Your task to perform on an android device: open chrome and create a bookmark for the current page Image 0: 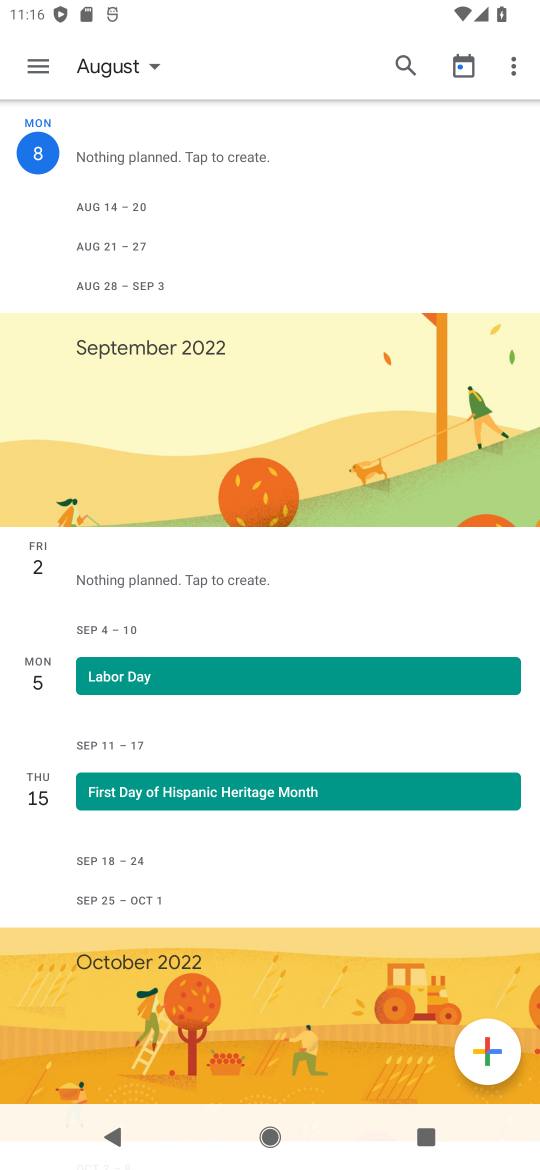
Step 0: press home button
Your task to perform on an android device: open chrome and create a bookmark for the current page Image 1: 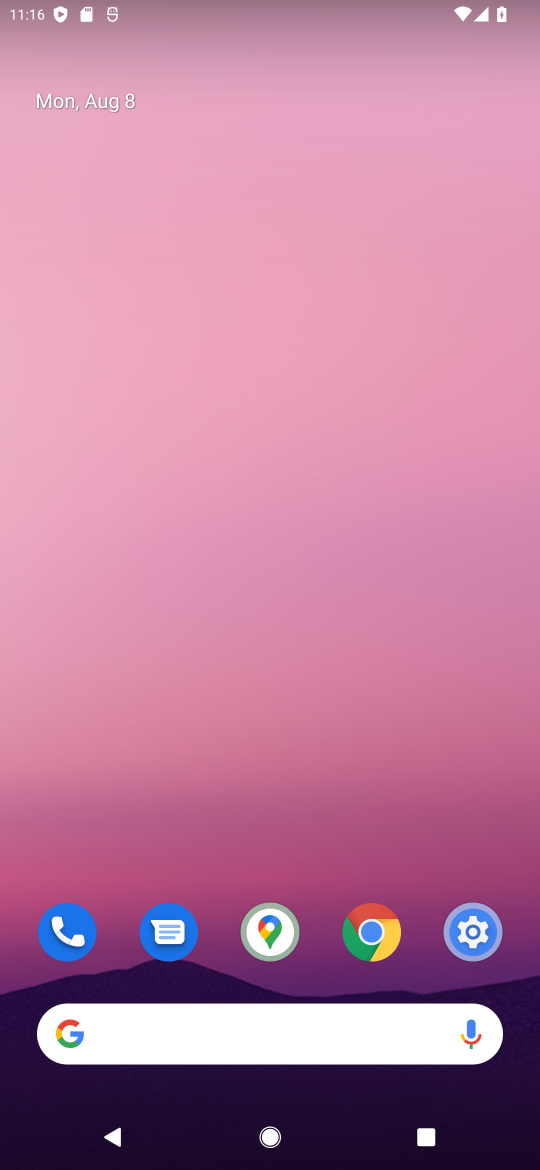
Step 1: click (389, 942)
Your task to perform on an android device: open chrome and create a bookmark for the current page Image 2: 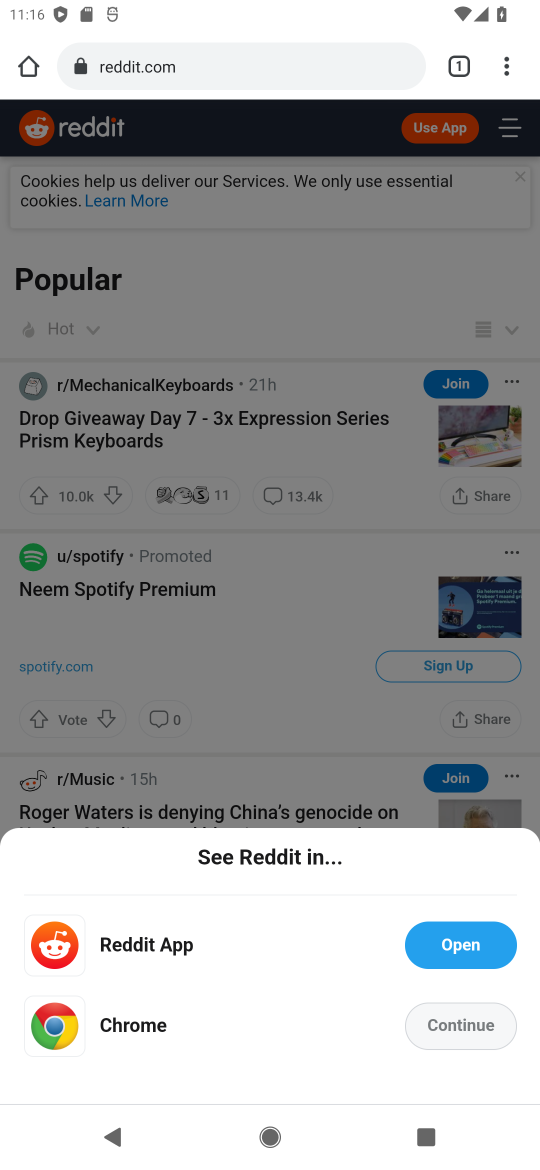
Step 2: click (501, 83)
Your task to perform on an android device: open chrome and create a bookmark for the current page Image 3: 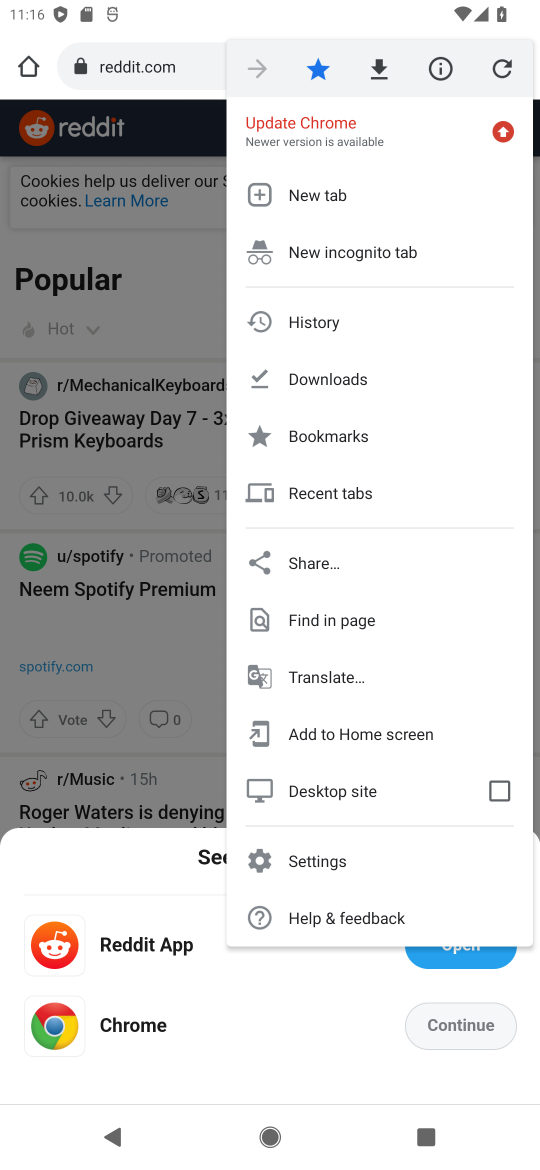
Step 3: task complete